Your task to perform on an android device: turn off improve location accuracy Image 0: 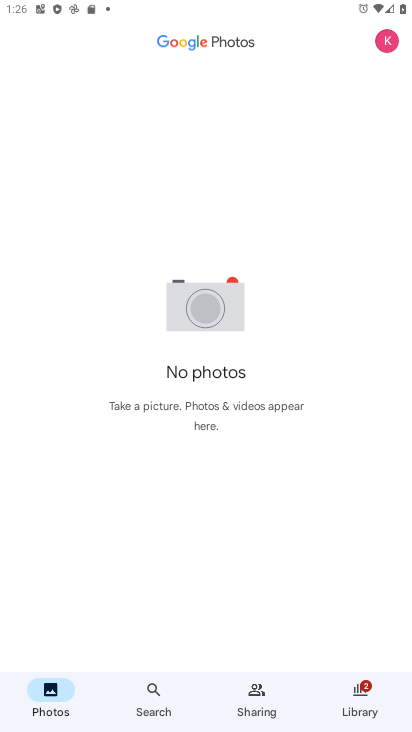
Step 0: press home button
Your task to perform on an android device: turn off improve location accuracy Image 1: 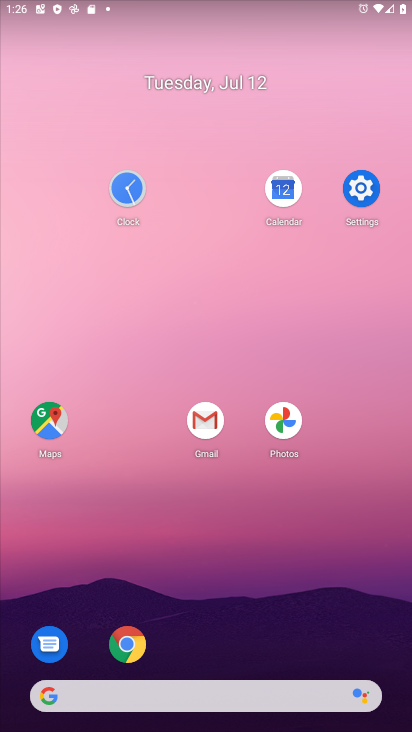
Step 1: click (347, 199)
Your task to perform on an android device: turn off improve location accuracy Image 2: 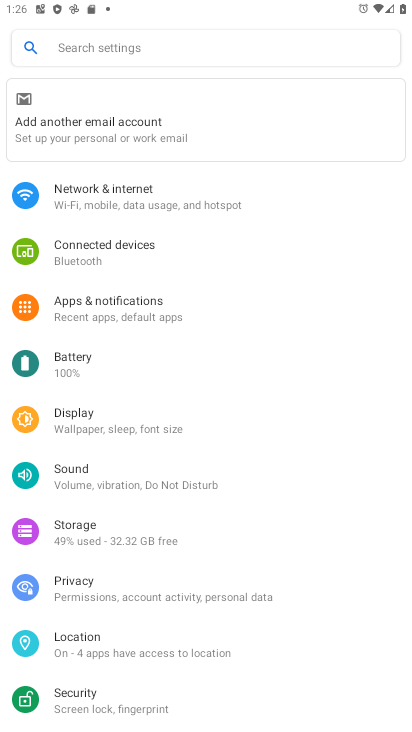
Step 2: click (134, 639)
Your task to perform on an android device: turn off improve location accuracy Image 3: 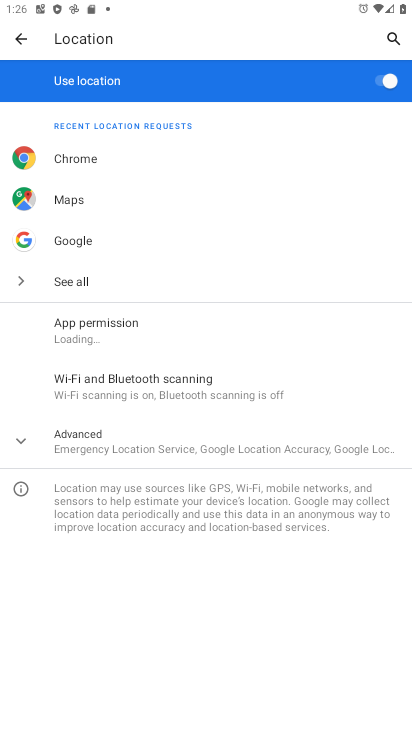
Step 3: click (152, 435)
Your task to perform on an android device: turn off improve location accuracy Image 4: 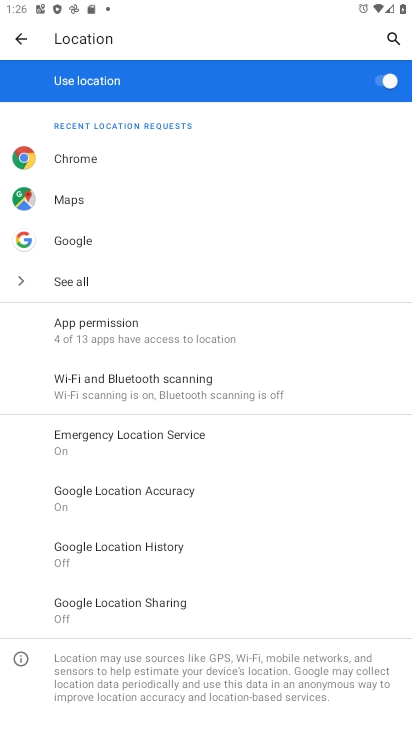
Step 4: click (174, 478)
Your task to perform on an android device: turn off improve location accuracy Image 5: 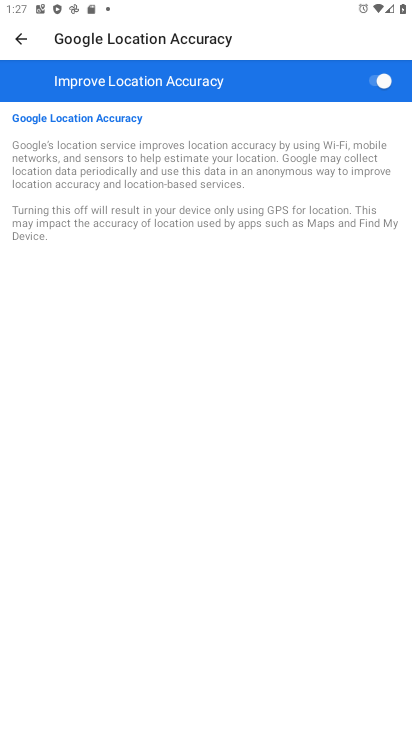
Step 5: click (386, 84)
Your task to perform on an android device: turn off improve location accuracy Image 6: 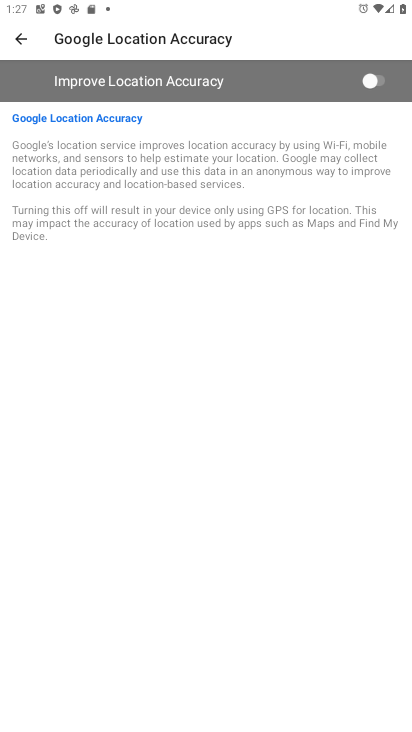
Step 6: task complete